Your task to perform on an android device: empty trash in google photos Image 0: 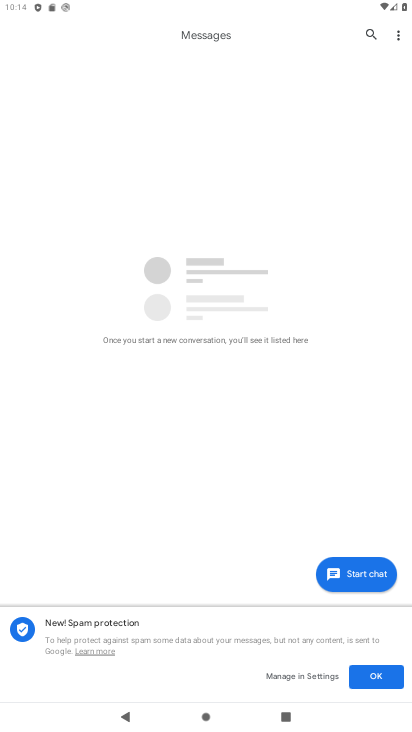
Step 0: press home button
Your task to perform on an android device: empty trash in google photos Image 1: 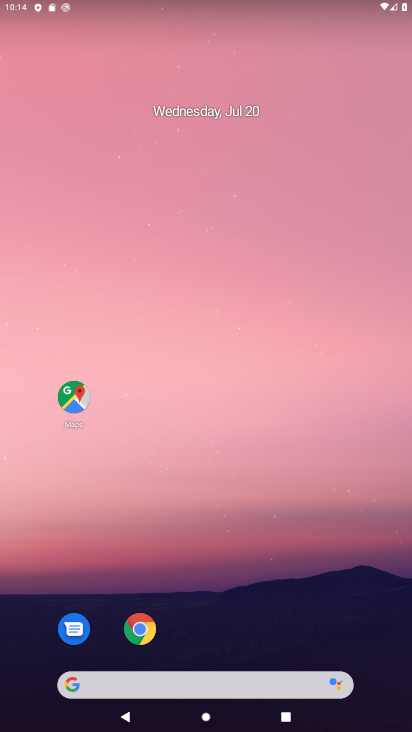
Step 1: drag from (314, 220) to (387, 32)
Your task to perform on an android device: empty trash in google photos Image 2: 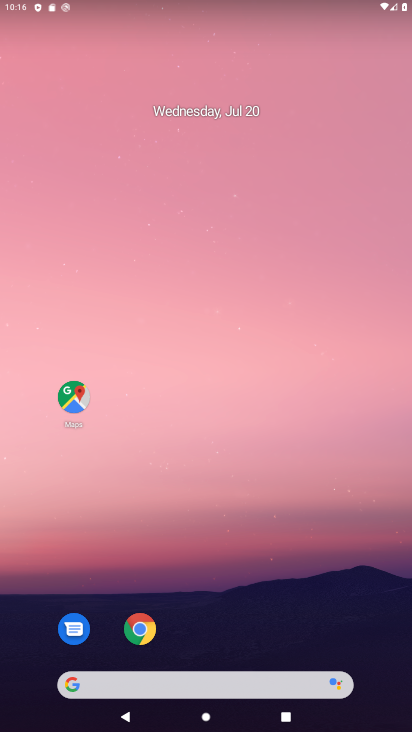
Step 2: drag from (243, 586) to (65, 9)
Your task to perform on an android device: empty trash in google photos Image 3: 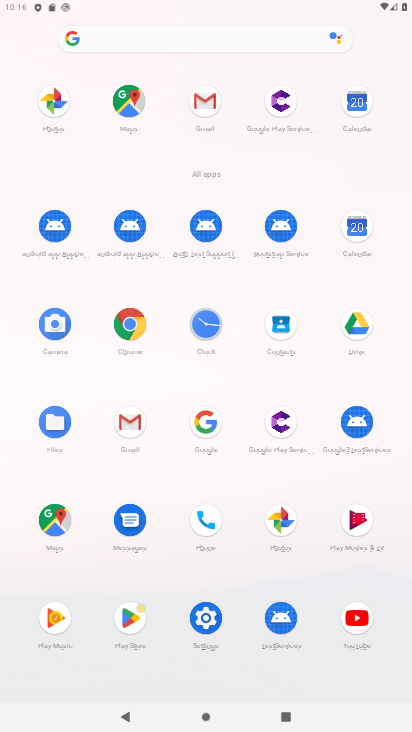
Step 3: click (276, 522)
Your task to perform on an android device: empty trash in google photos Image 4: 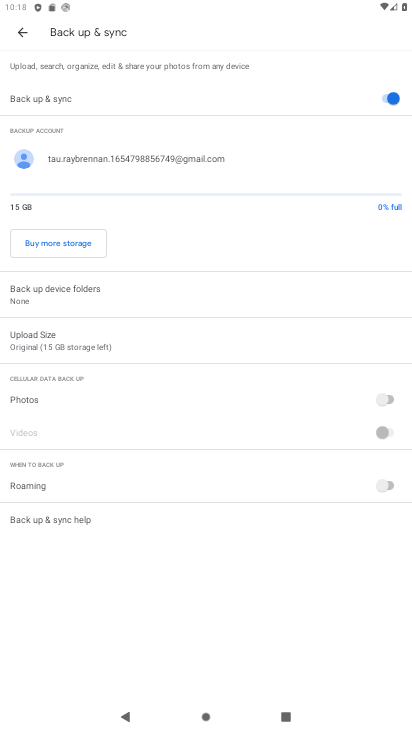
Step 4: click (27, 33)
Your task to perform on an android device: empty trash in google photos Image 5: 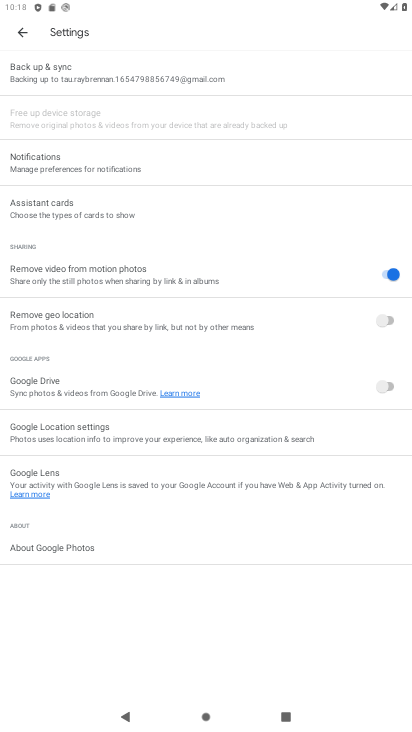
Step 5: click (15, 33)
Your task to perform on an android device: empty trash in google photos Image 6: 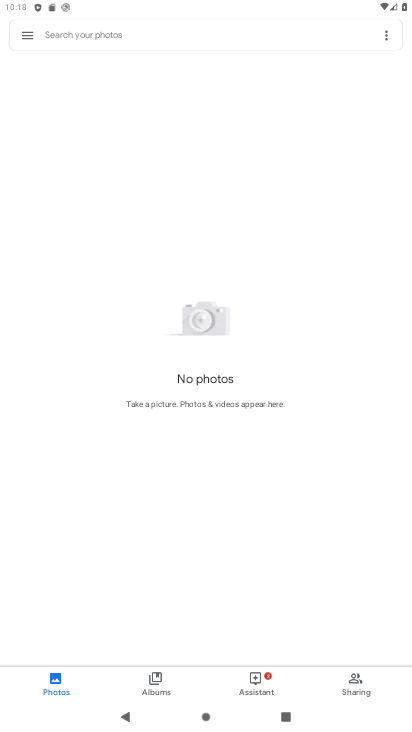
Step 6: click (22, 38)
Your task to perform on an android device: empty trash in google photos Image 7: 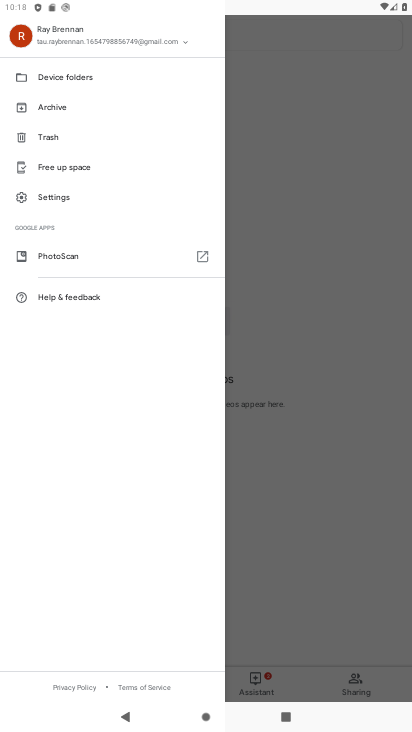
Step 7: click (32, 138)
Your task to perform on an android device: empty trash in google photos Image 8: 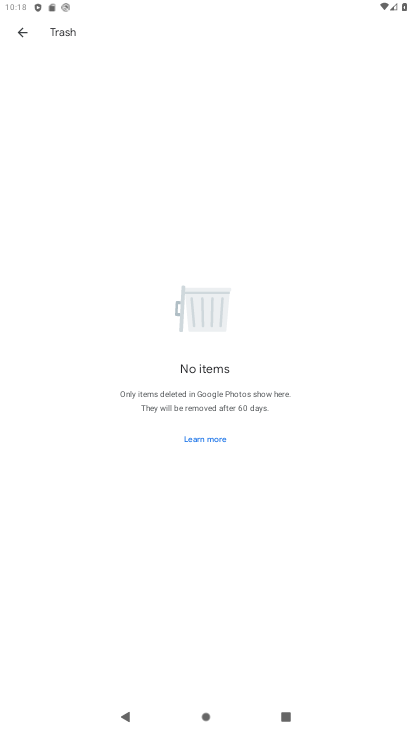
Step 8: task complete